Your task to perform on an android device: Empty the shopping cart on amazon.com. Image 0: 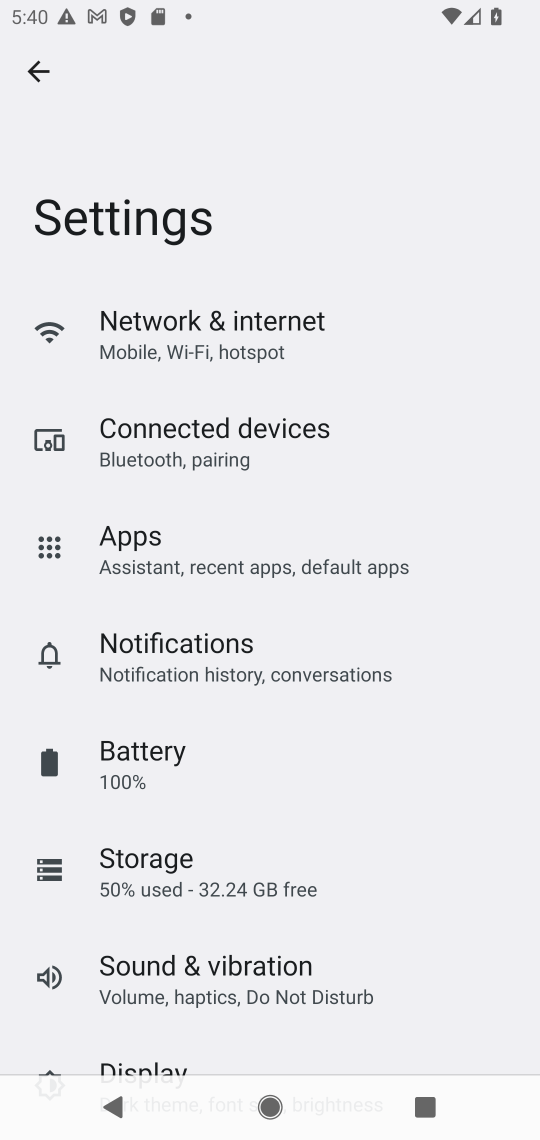
Step 0: press home button
Your task to perform on an android device: Empty the shopping cart on amazon.com. Image 1: 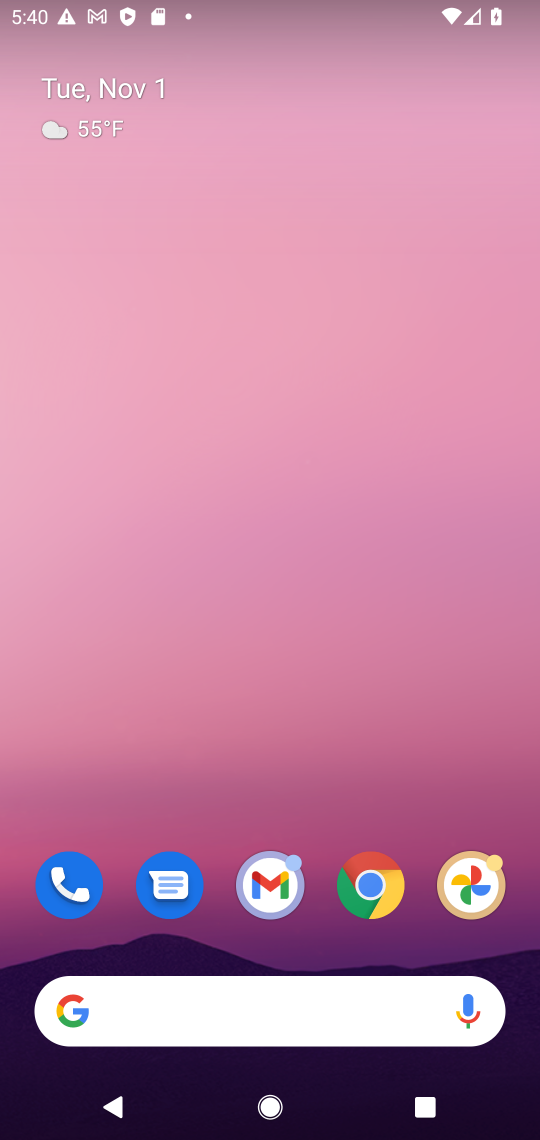
Step 1: click (371, 889)
Your task to perform on an android device: Empty the shopping cart on amazon.com. Image 2: 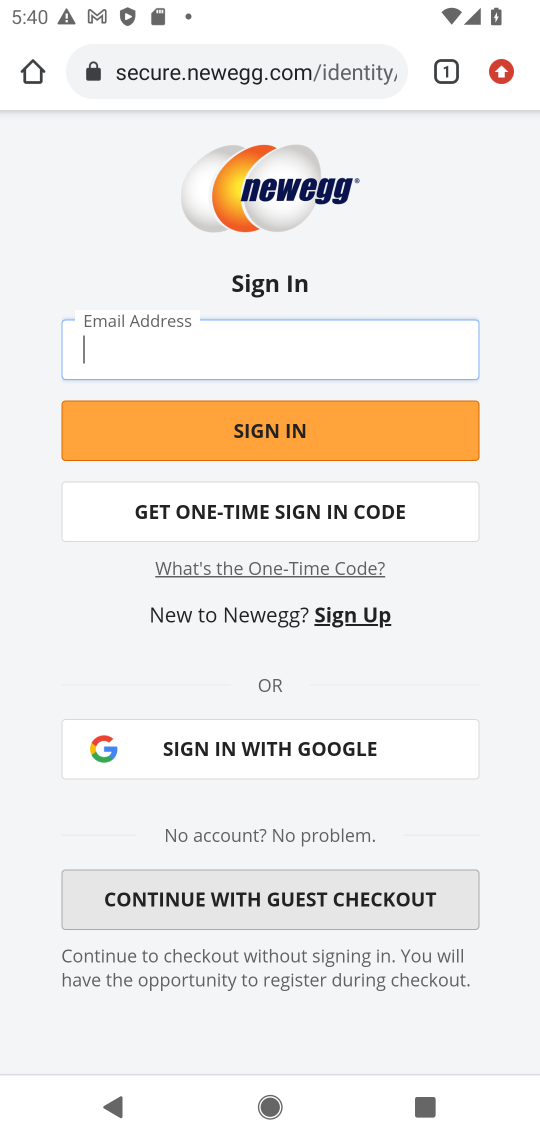
Step 2: click (260, 49)
Your task to perform on an android device: Empty the shopping cart on amazon.com. Image 3: 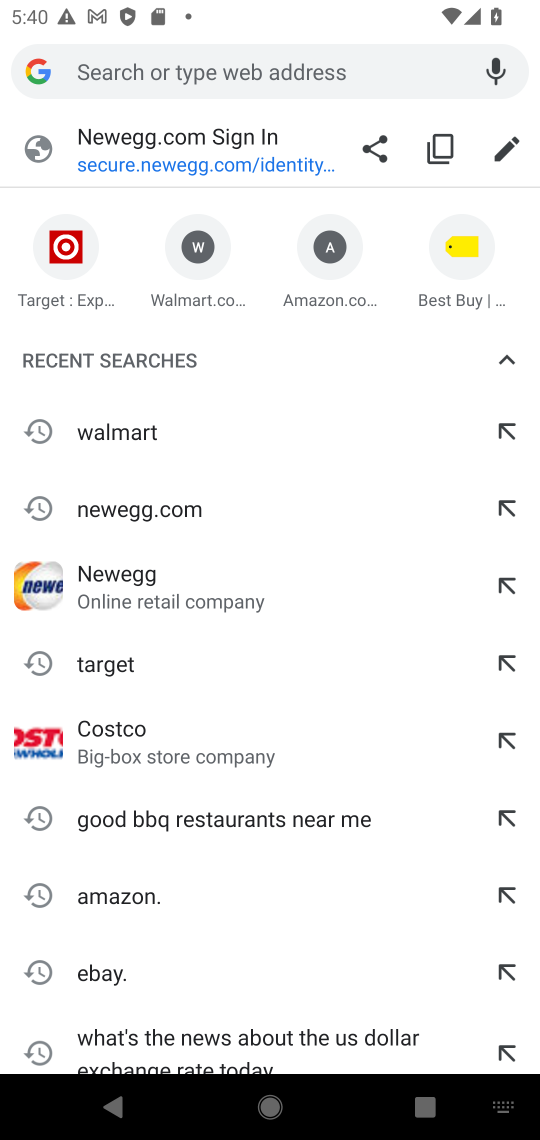
Step 3: type "amazon.com."
Your task to perform on an android device: Empty the shopping cart on amazon.com. Image 4: 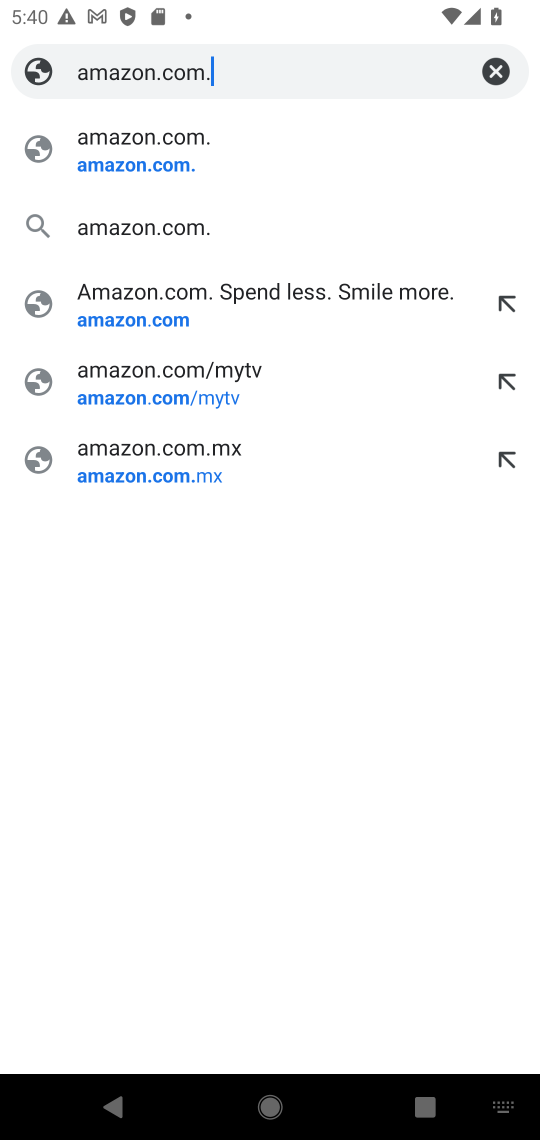
Step 4: click (131, 158)
Your task to perform on an android device: Empty the shopping cart on amazon.com. Image 5: 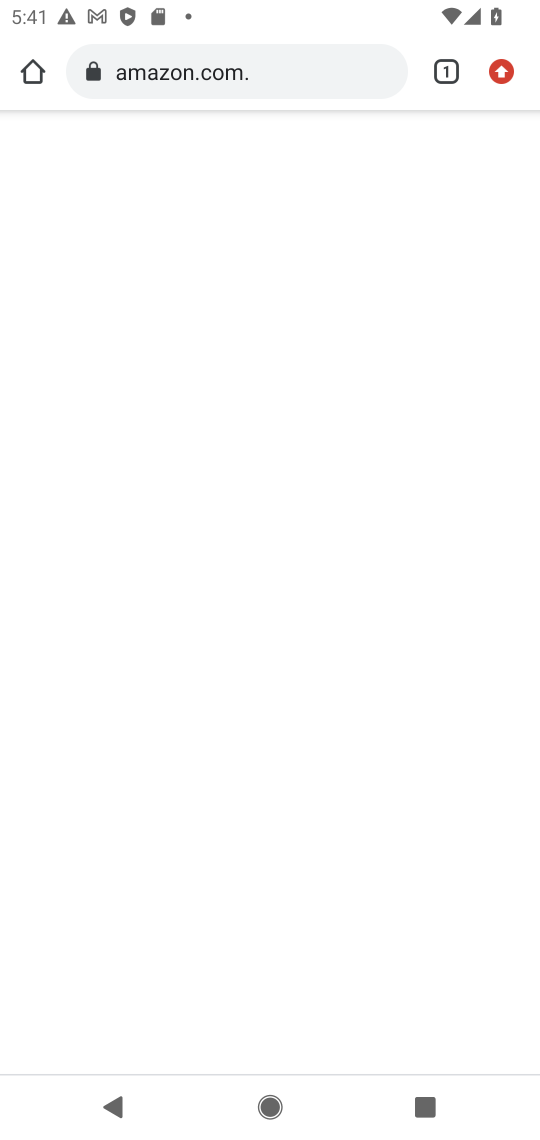
Step 5: click (267, 60)
Your task to perform on an android device: Empty the shopping cart on amazon.com. Image 6: 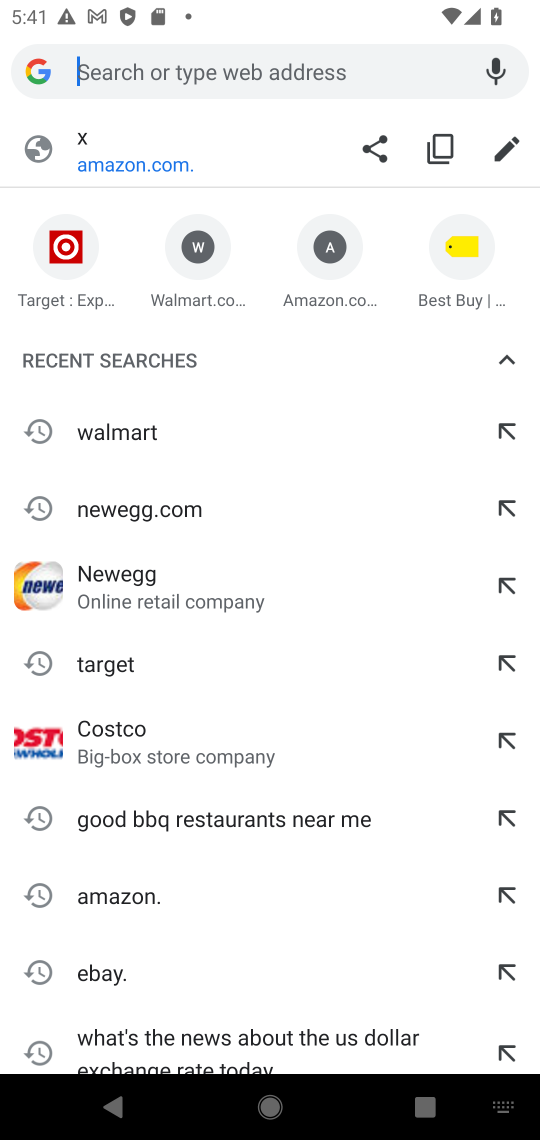
Step 6: click (332, 256)
Your task to perform on an android device: Empty the shopping cart on amazon.com. Image 7: 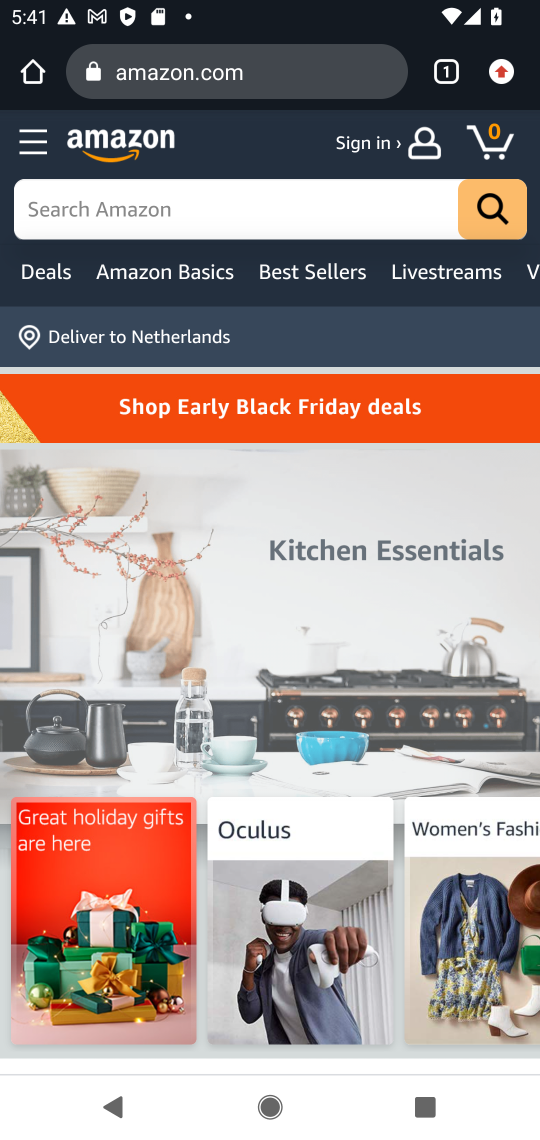
Step 7: click (488, 137)
Your task to perform on an android device: Empty the shopping cart on amazon.com. Image 8: 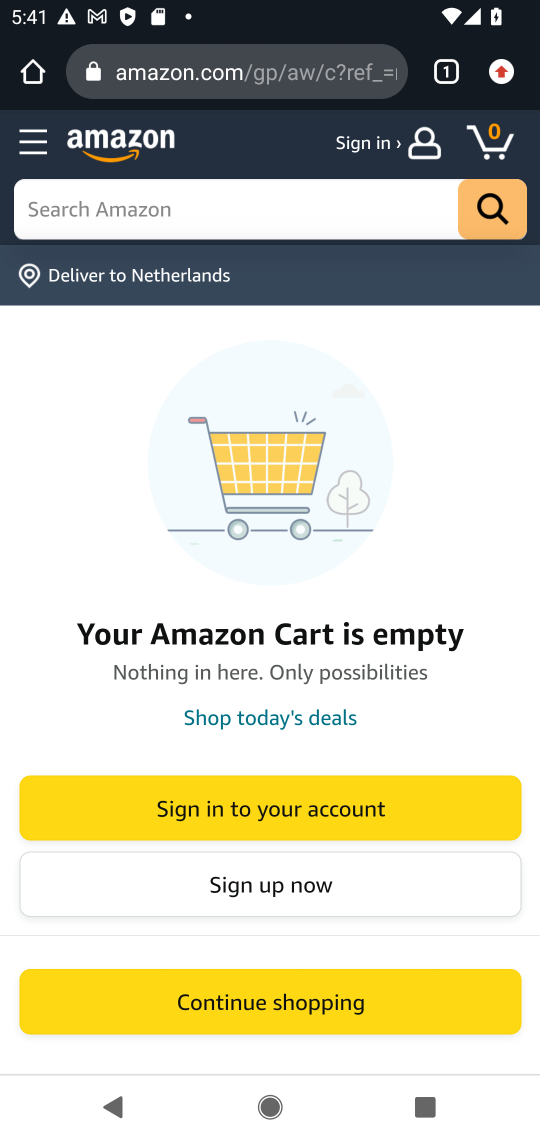
Step 8: task complete